Your task to perform on an android device: change your default location settings in chrome Image 0: 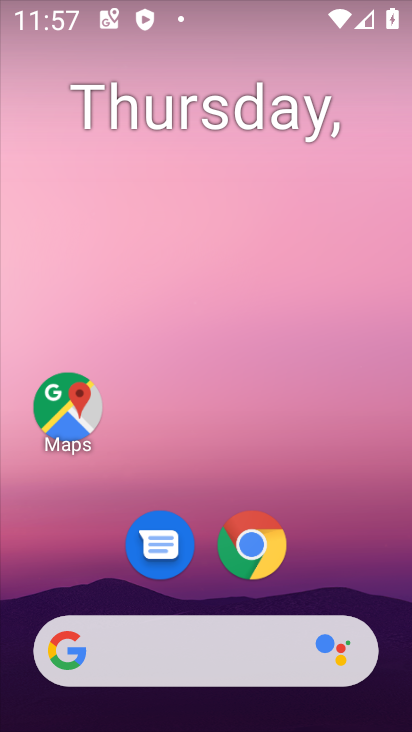
Step 0: drag from (329, 583) to (302, 217)
Your task to perform on an android device: change your default location settings in chrome Image 1: 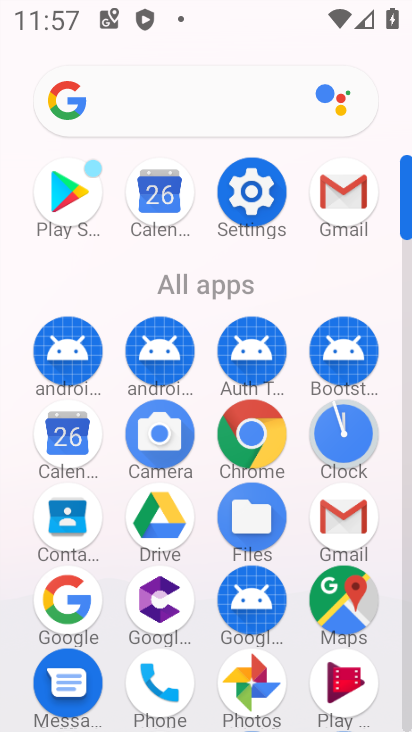
Step 1: click (263, 428)
Your task to perform on an android device: change your default location settings in chrome Image 2: 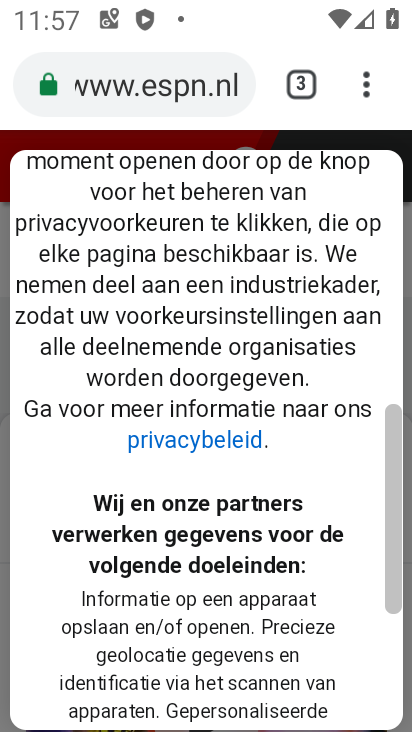
Step 2: click (364, 84)
Your task to perform on an android device: change your default location settings in chrome Image 3: 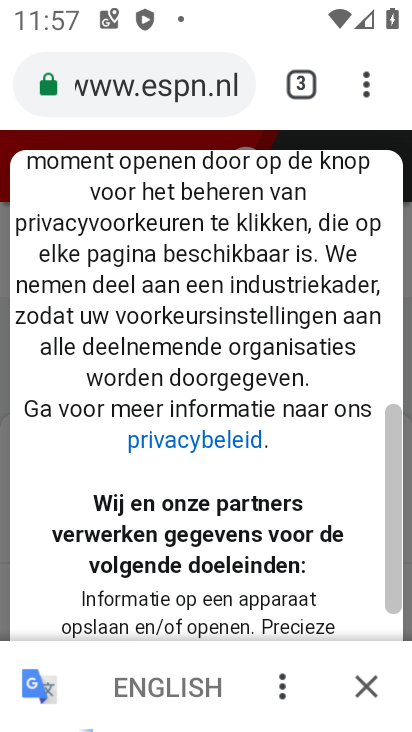
Step 3: click (162, 699)
Your task to perform on an android device: change your default location settings in chrome Image 4: 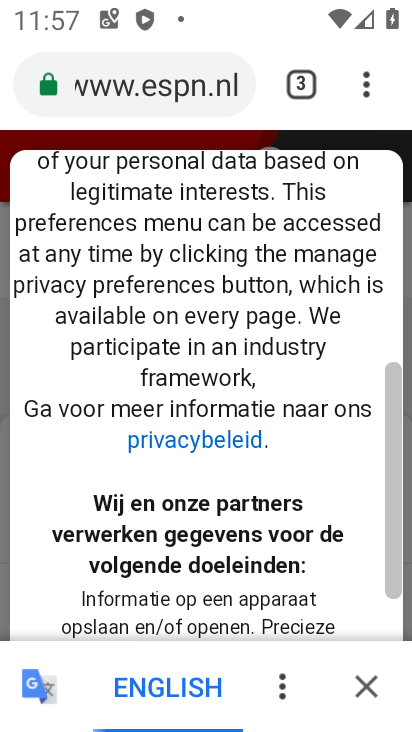
Step 4: click (359, 74)
Your task to perform on an android device: change your default location settings in chrome Image 5: 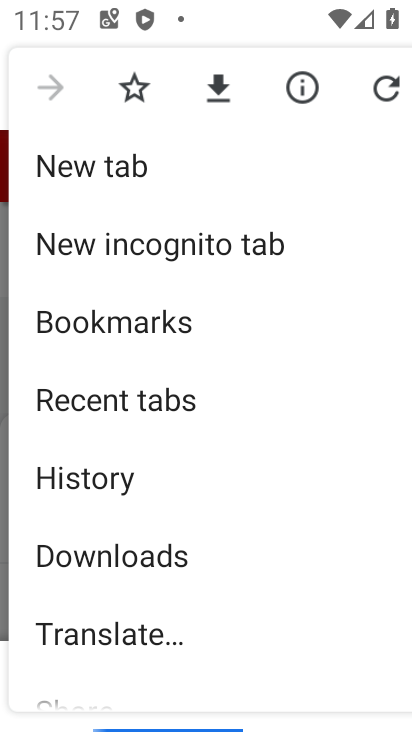
Step 5: drag from (219, 616) to (209, 226)
Your task to perform on an android device: change your default location settings in chrome Image 6: 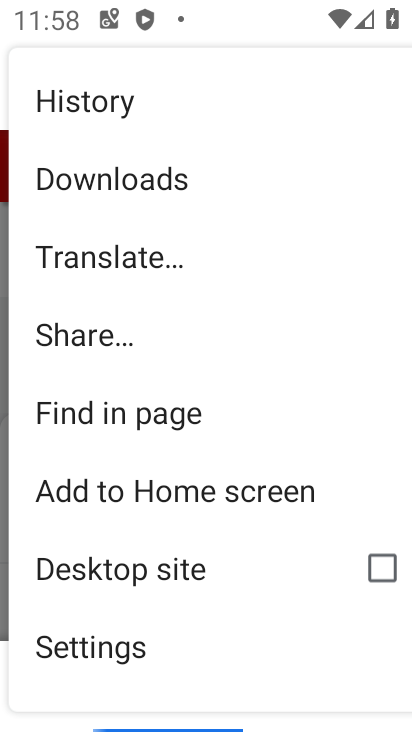
Step 6: click (139, 644)
Your task to perform on an android device: change your default location settings in chrome Image 7: 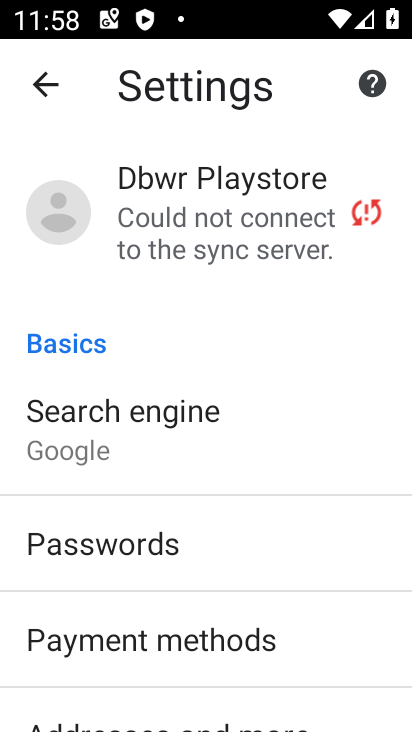
Step 7: drag from (173, 649) to (219, 311)
Your task to perform on an android device: change your default location settings in chrome Image 8: 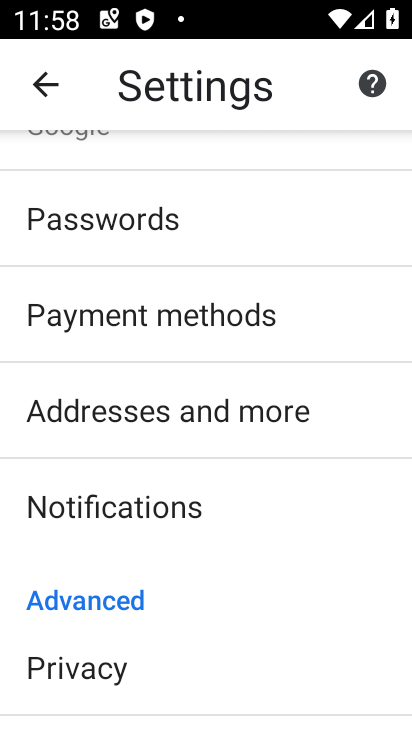
Step 8: drag from (192, 643) to (228, 293)
Your task to perform on an android device: change your default location settings in chrome Image 9: 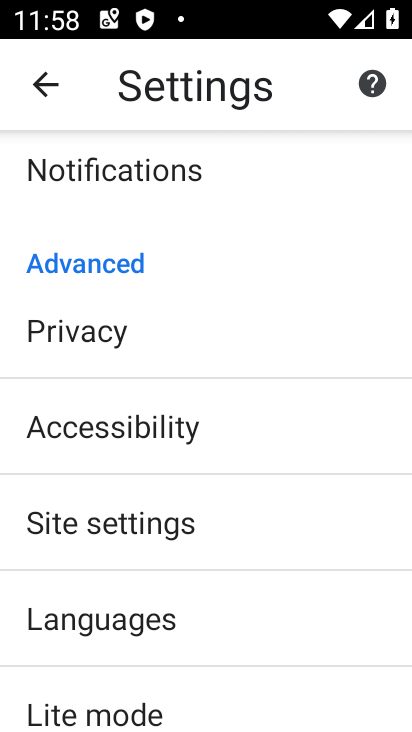
Step 9: drag from (169, 664) to (204, 302)
Your task to perform on an android device: change your default location settings in chrome Image 10: 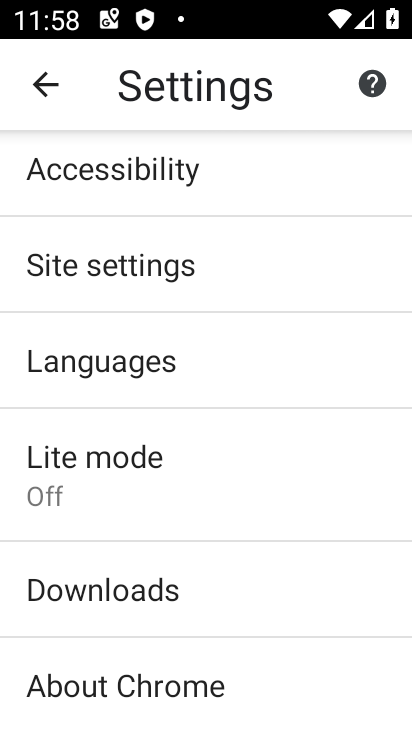
Step 10: drag from (203, 191) to (224, 640)
Your task to perform on an android device: change your default location settings in chrome Image 11: 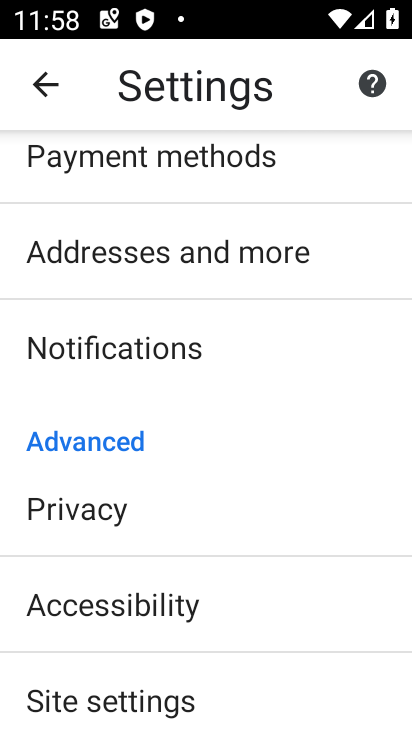
Step 11: drag from (173, 213) to (182, 626)
Your task to perform on an android device: change your default location settings in chrome Image 12: 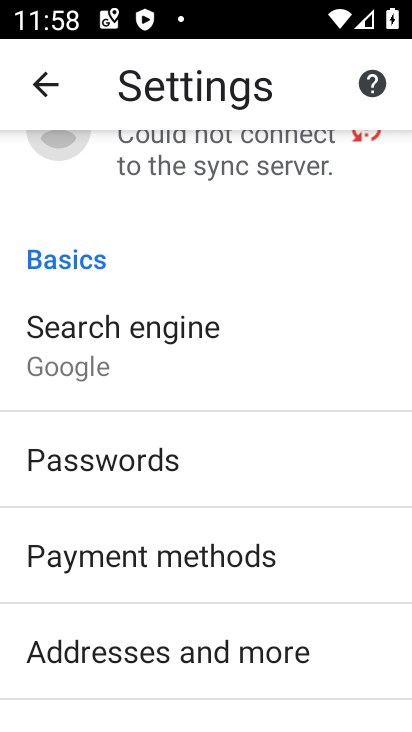
Step 12: drag from (248, 644) to (236, 356)
Your task to perform on an android device: change your default location settings in chrome Image 13: 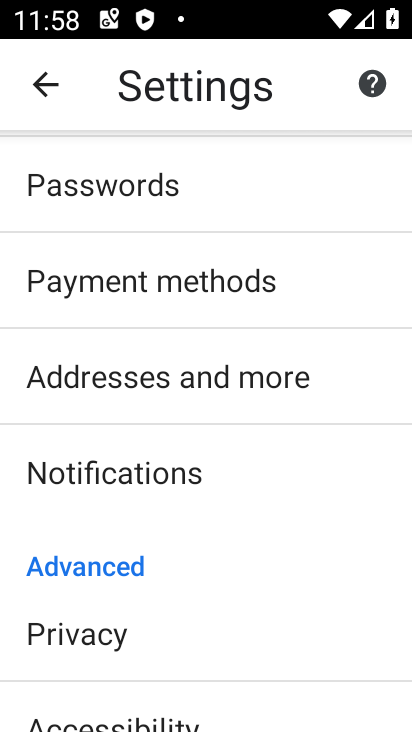
Step 13: drag from (189, 571) to (190, 286)
Your task to perform on an android device: change your default location settings in chrome Image 14: 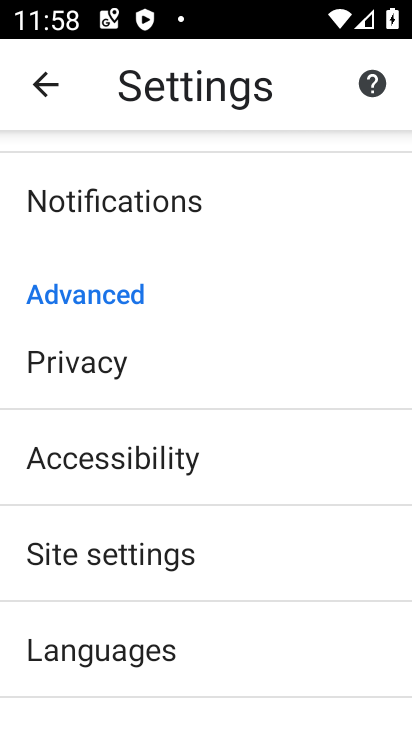
Step 14: drag from (190, 611) to (189, 536)
Your task to perform on an android device: change your default location settings in chrome Image 15: 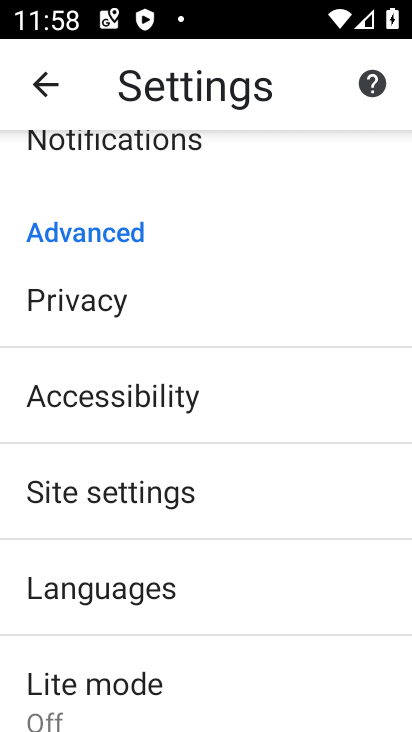
Step 15: click (157, 483)
Your task to perform on an android device: change your default location settings in chrome Image 16: 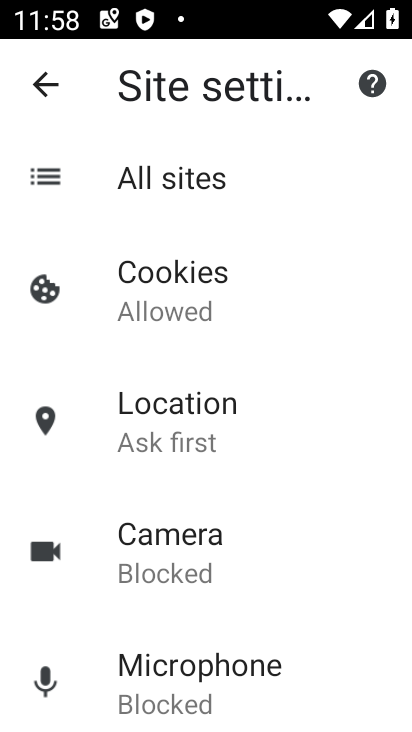
Step 16: click (201, 418)
Your task to perform on an android device: change your default location settings in chrome Image 17: 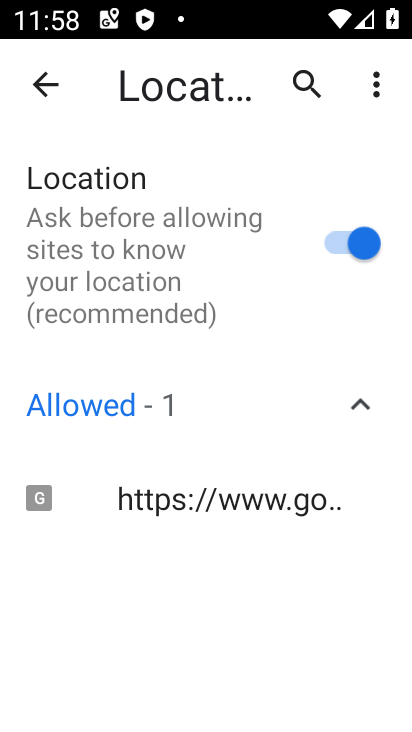
Step 17: click (318, 244)
Your task to perform on an android device: change your default location settings in chrome Image 18: 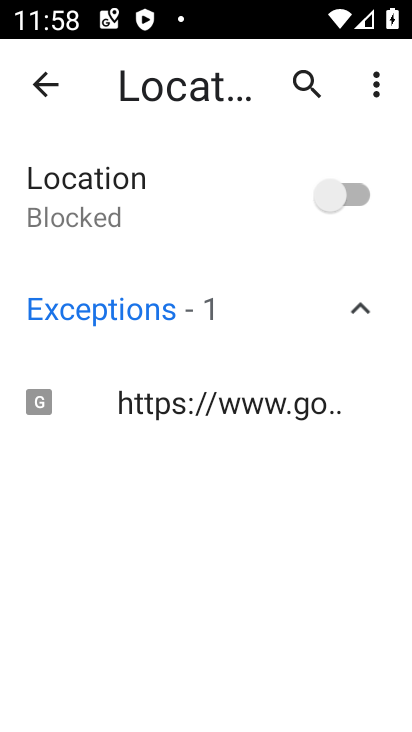
Step 18: task complete